Your task to perform on an android device: Find coffee shops on Maps Image 0: 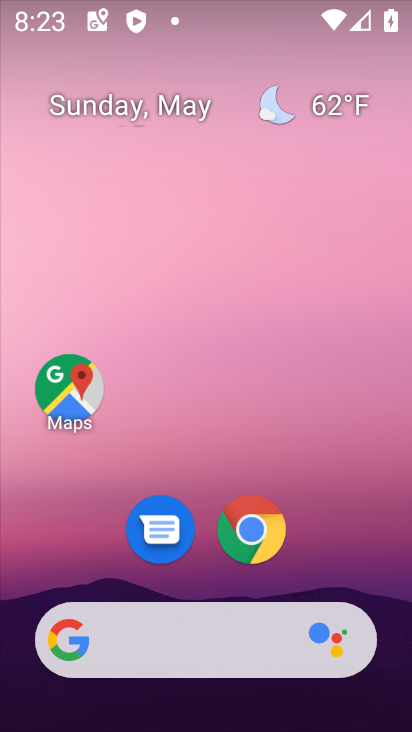
Step 0: drag from (358, 541) to (357, 167)
Your task to perform on an android device: Find coffee shops on Maps Image 1: 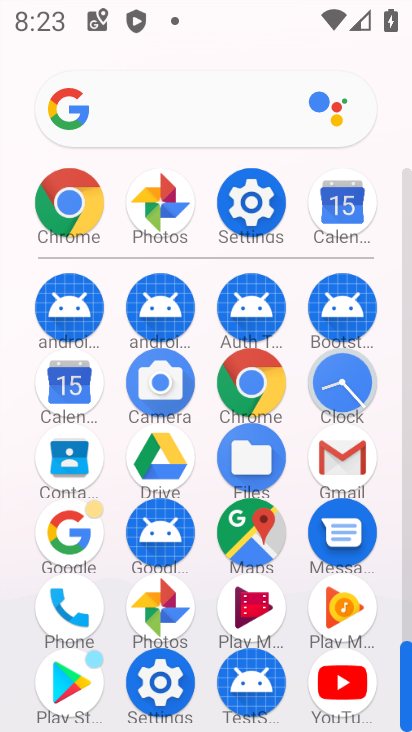
Step 1: click (271, 547)
Your task to perform on an android device: Find coffee shops on Maps Image 2: 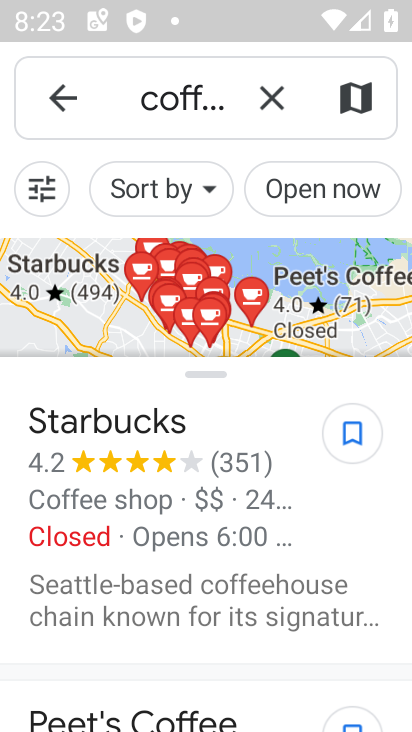
Step 2: task complete